Your task to perform on an android device: See recent photos Image 0: 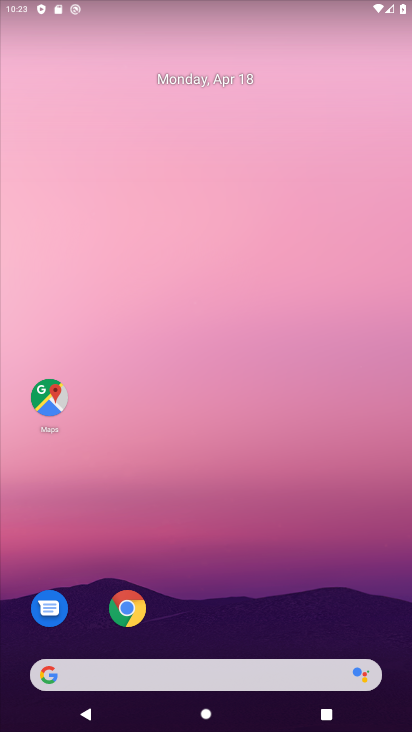
Step 0: drag from (368, 604) to (293, 173)
Your task to perform on an android device: See recent photos Image 1: 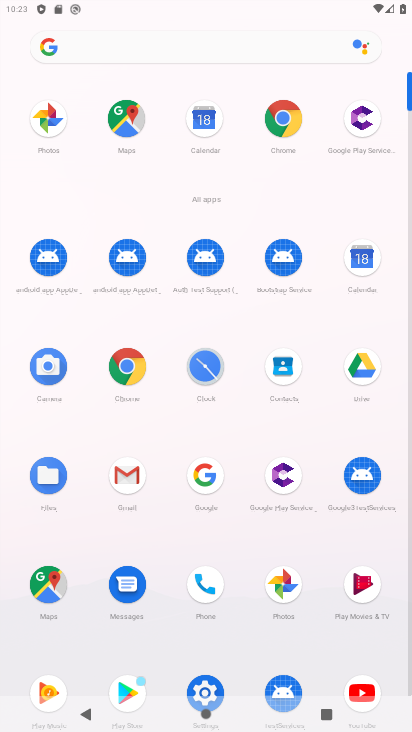
Step 1: click (45, 131)
Your task to perform on an android device: See recent photos Image 2: 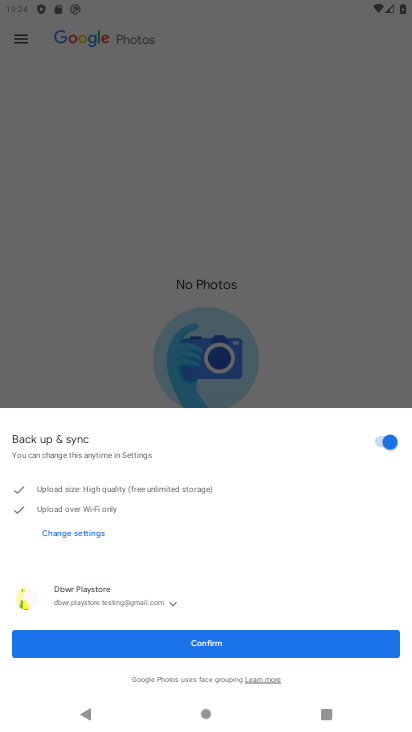
Step 2: click (249, 648)
Your task to perform on an android device: See recent photos Image 3: 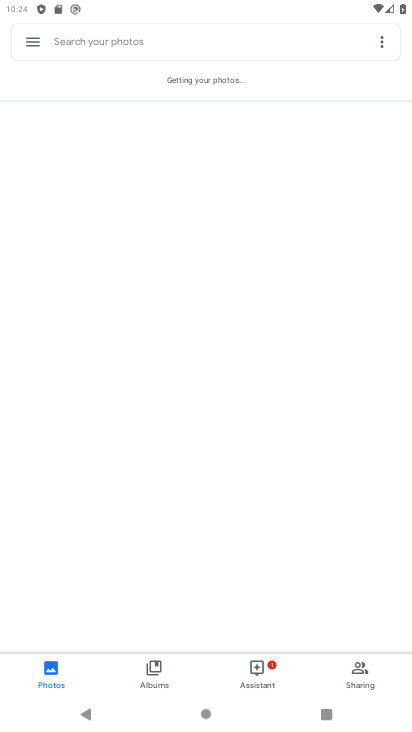
Step 3: task complete